Your task to perform on an android device: Show me the alarms in the clock app Image 0: 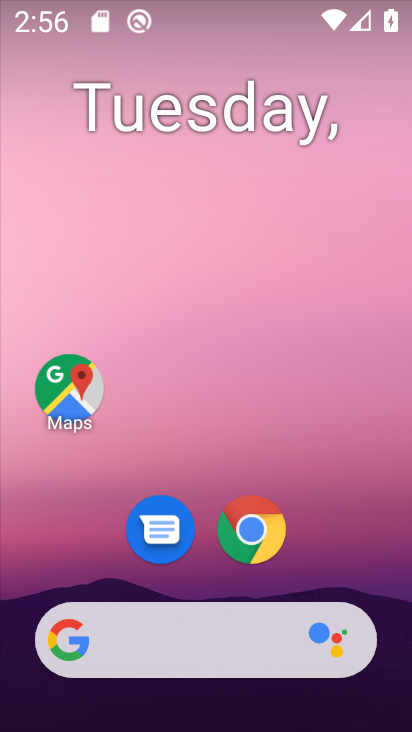
Step 0: drag from (324, 507) to (277, 46)
Your task to perform on an android device: Show me the alarms in the clock app Image 1: 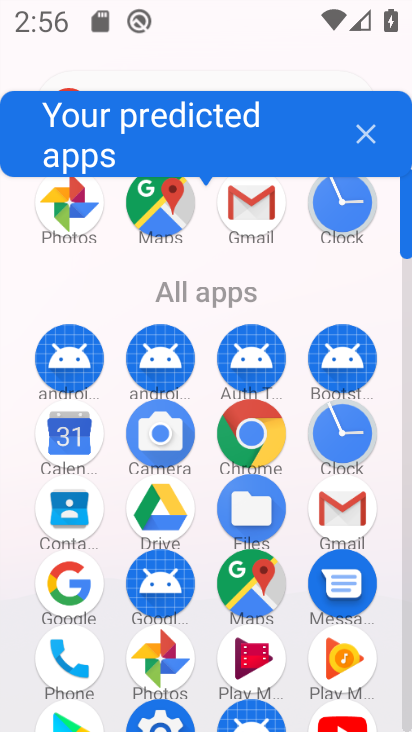
Step 1: click (336, 208)
Your task to perform on an android device: Show me the alarms in the clock app Image 2: 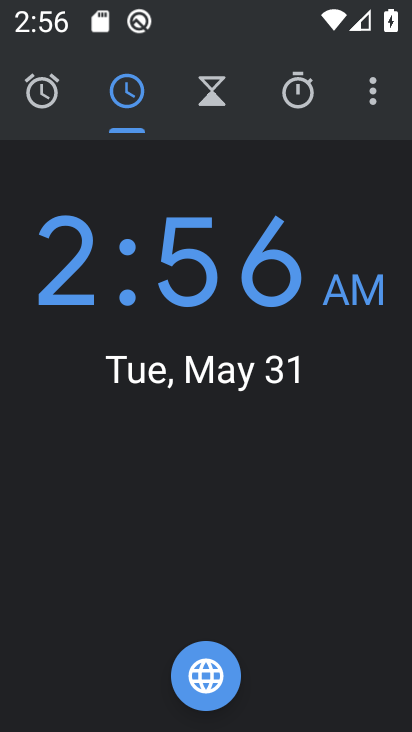
Step 2: click (44, 94)
Your task to perform on an android device: Show me the alarms in the clock app Image 3: 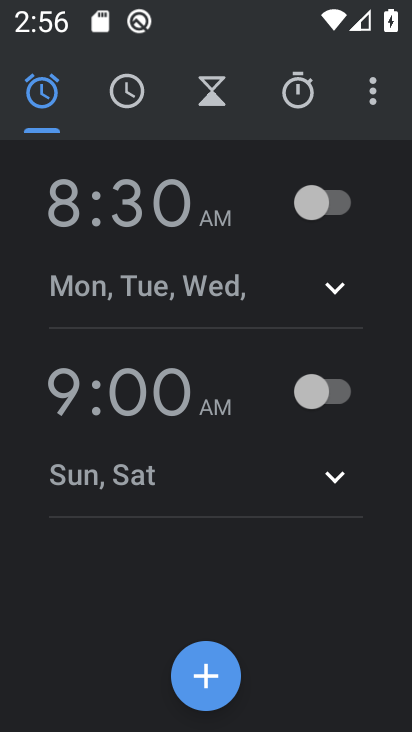
Step 3: task complete